Your task to perform on an android device: see sites visited before in the chrome app Image 0: 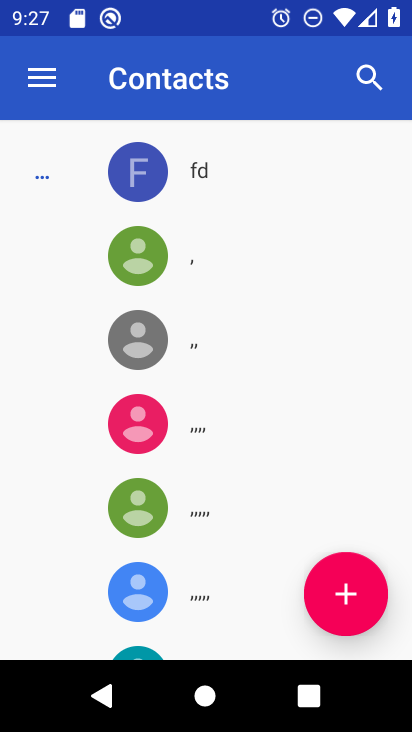
Step 0: press home button
Your task to perform on an android device: see sites visited before in the chrome app Image 1: 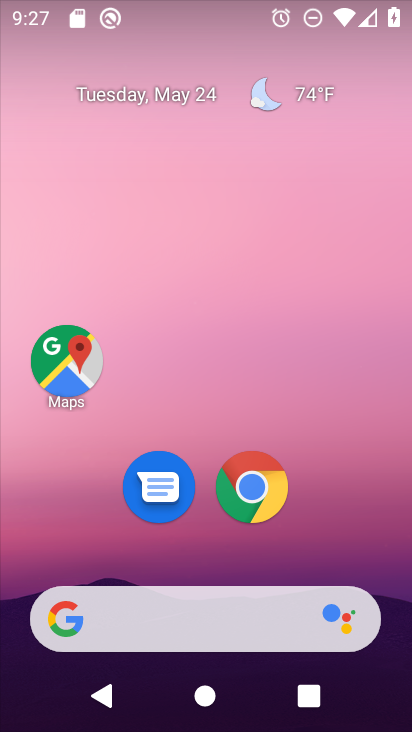
Step 1: click (255, 487)
Your task to perform on an android device: see sites visited before in the chrome app Image 2: 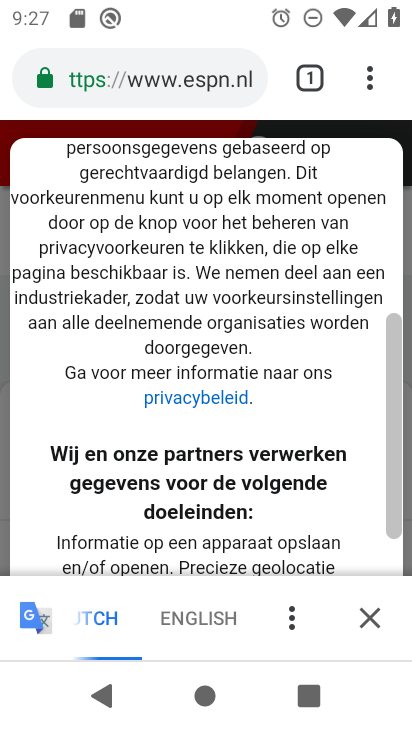
Step 2: click (371, 82)
Your task to perform on an android device: see sites visited before in the chrome app Image 3: 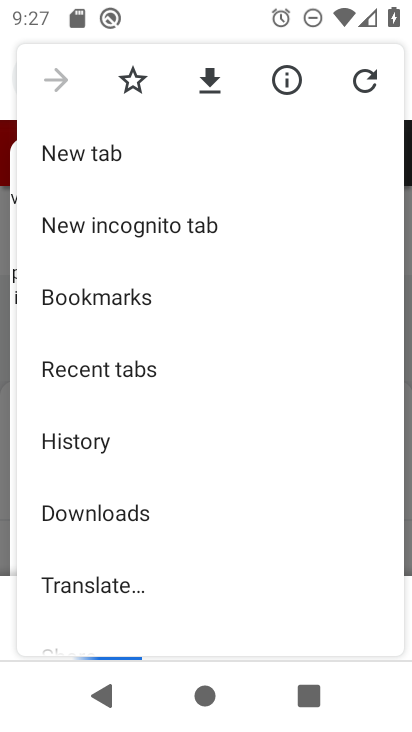
Step 3: click (65, 445)
Your task to perform on an android device: see sites visited before in the chrome app Image 4: 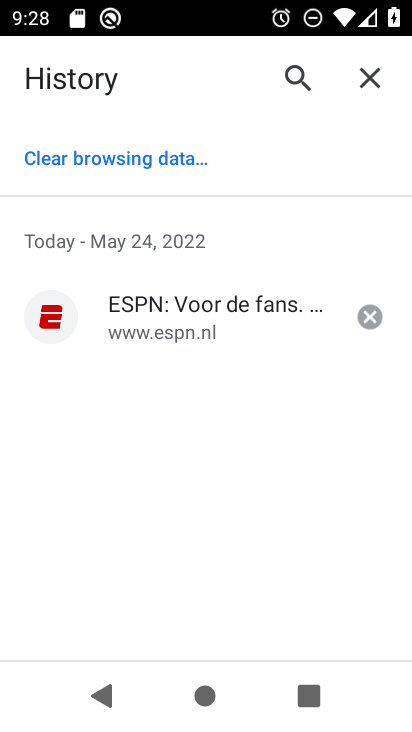
Step 4: task complete